Your task to perform on an android device: change the upload size in google photos Image 0: 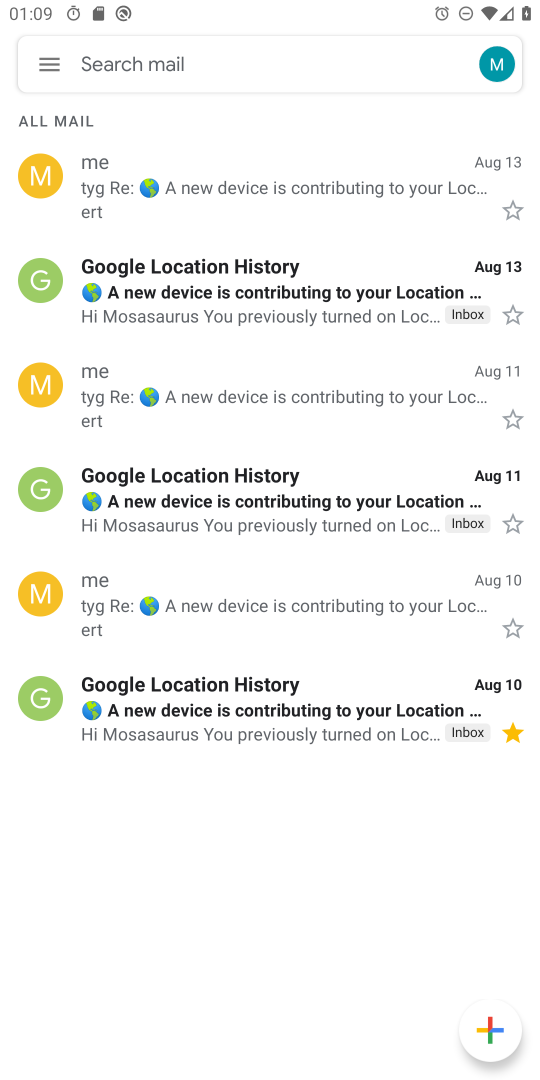
Step 0: press home button
Your task to perform on an android device: change the upload size in google photos Image 1: 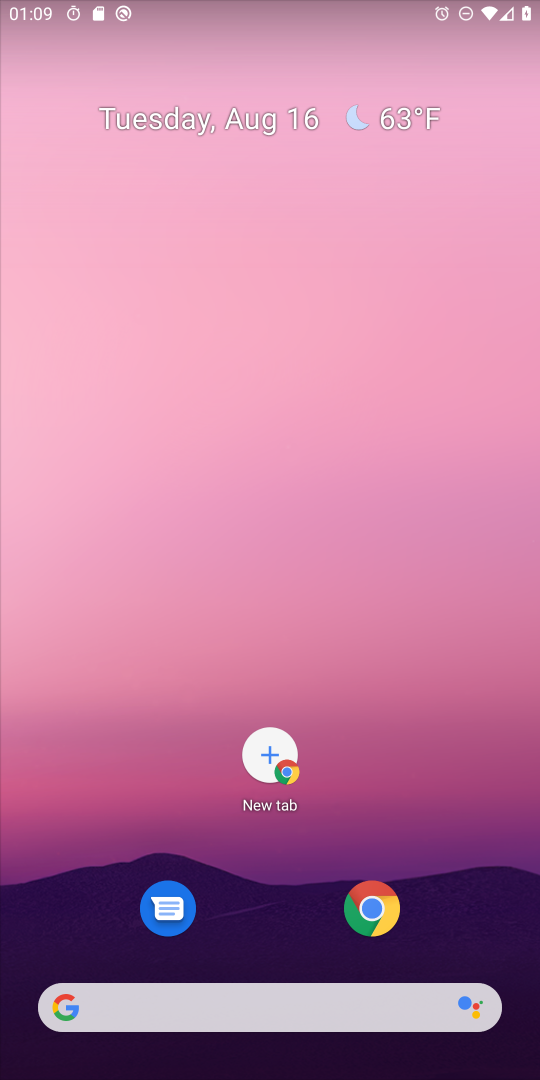
Step 1: drag from (242, 952) to (328, 91)
Your task to perform on an android device: change the upload size in google photos Image 2: 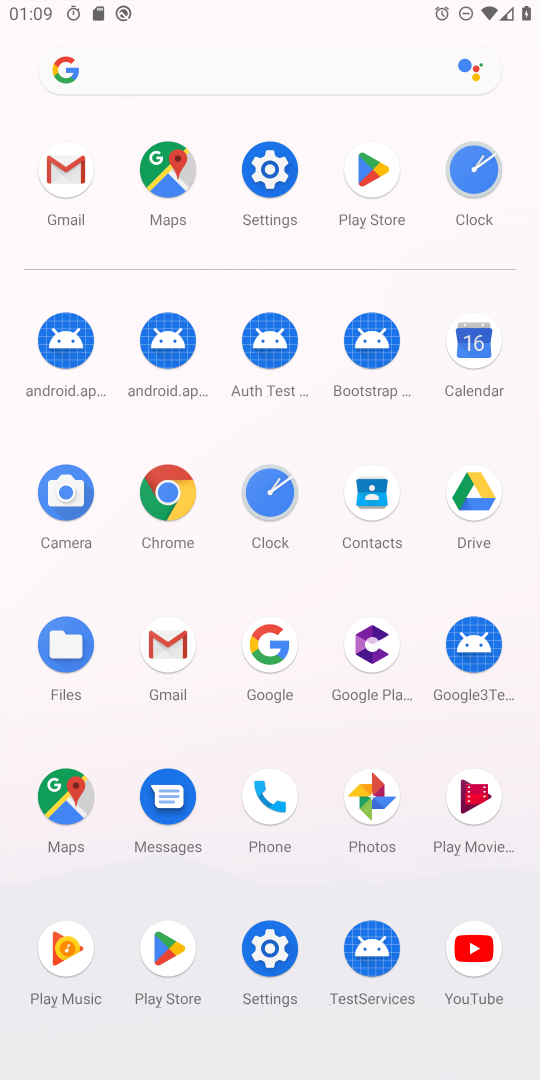
Step 2: click (362, 783)
Your task to perform on an android device: change the upload size in google photos Image 3: 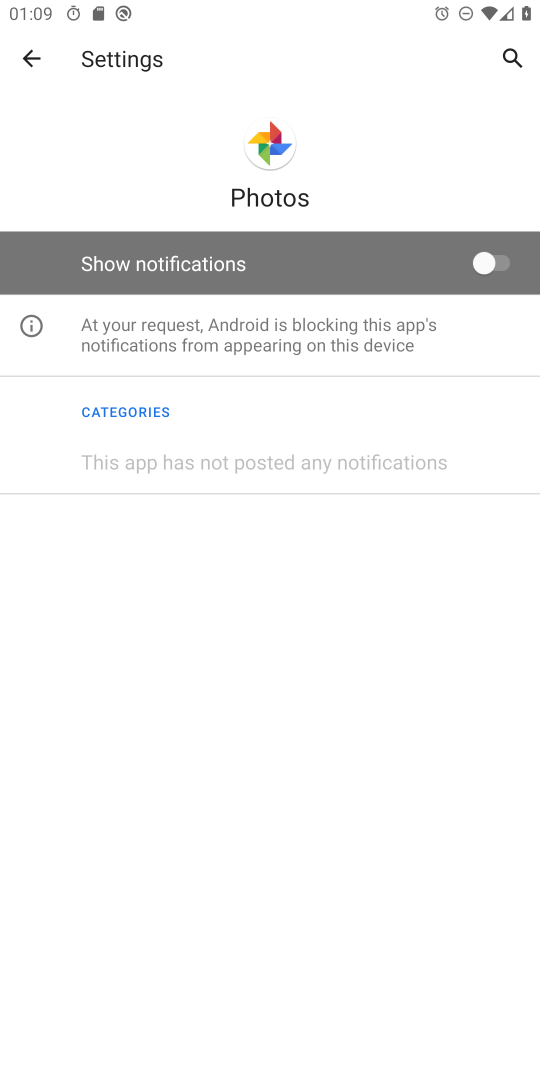
Step 3: click (48, 56)
Your task to perform on an android device: change the upload size in google photos Image 4: 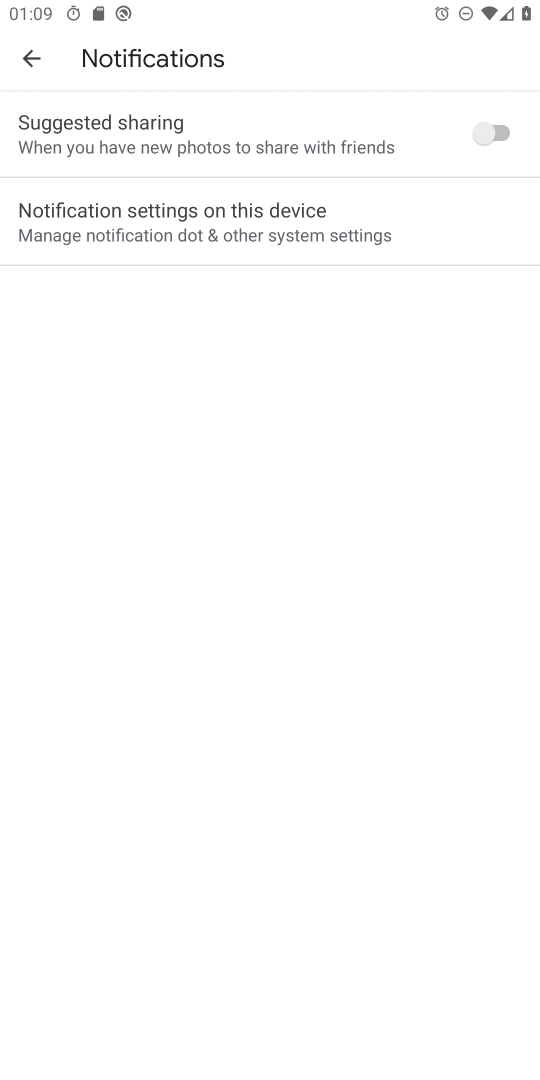
Step 4: click (30, 65)
Your task to perform on an android device: change the upload size in google photos Image 5: 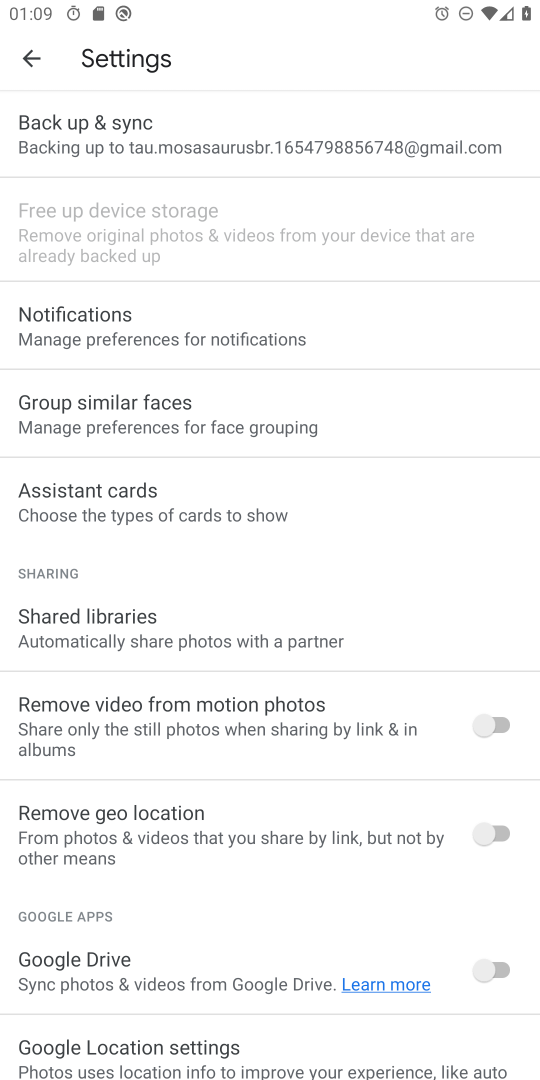
Step 5: click (135, 157)
Your task to perform on an android device: change the upload size in google photos Image 6: 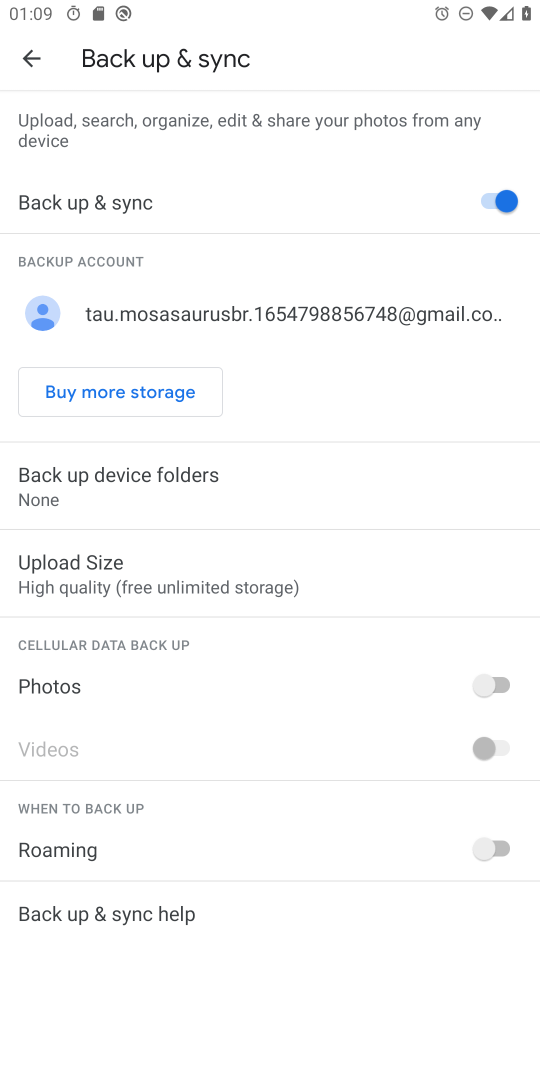
Step 6: click (163, 566)
Your task to perform on an android device: change the upload size in google photos Image 7: 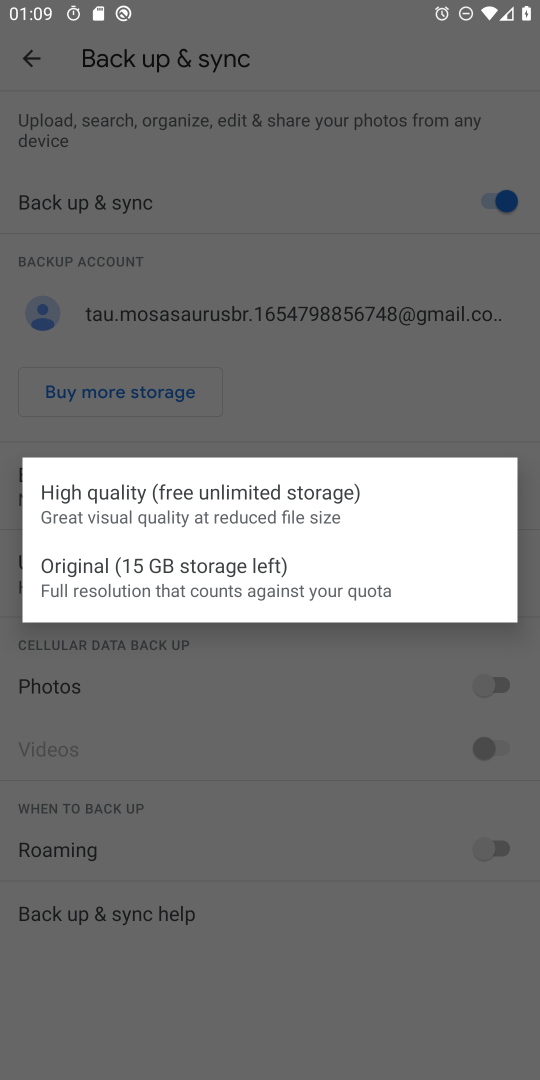
Step 7: click (163, 566)
Your task to perform on an android device: change the upload size in google photos Image 8: 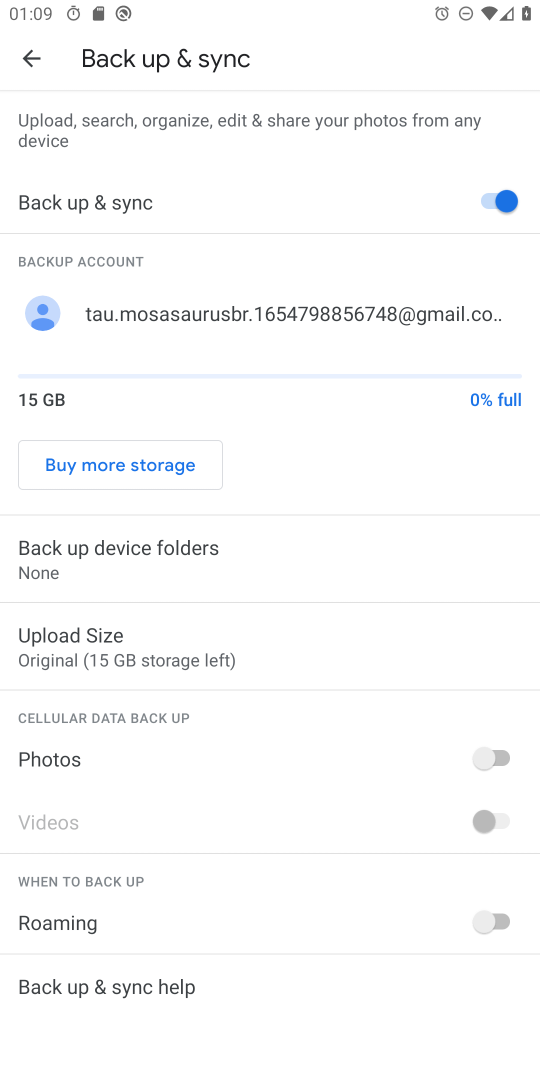
Step 8: task complete